Your task to perform on an android device: toggle javascript in the chrome app Image 0: 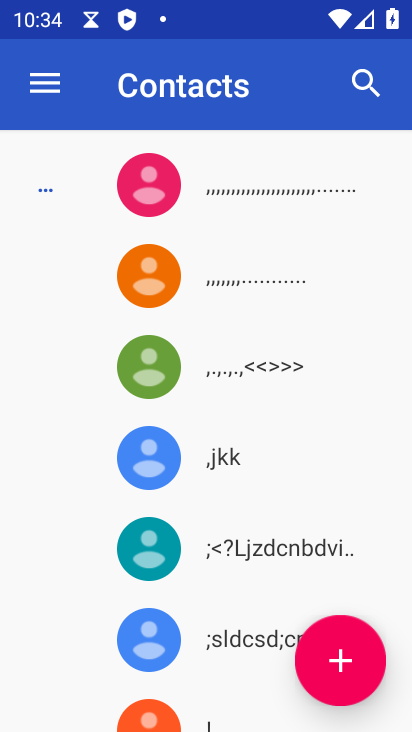
Step 0: press home button
Your task to perform on an android device: toggle javascript in the chrome app Image 1: 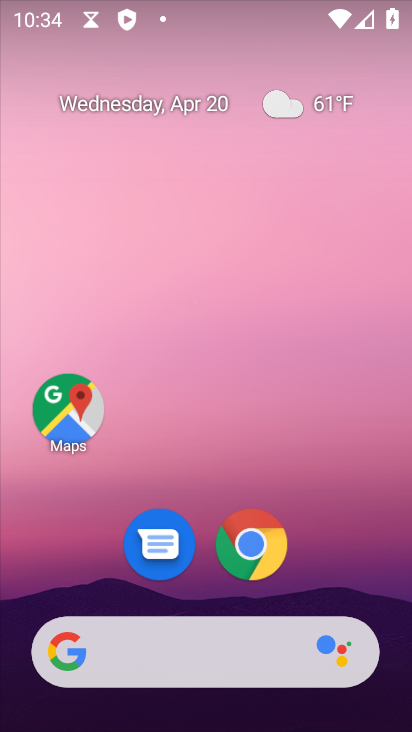
Step 1: drag from (184, 648) to (314, 28)
Your task to perform on an android device: toggle javascript in the chrome app Image 2: 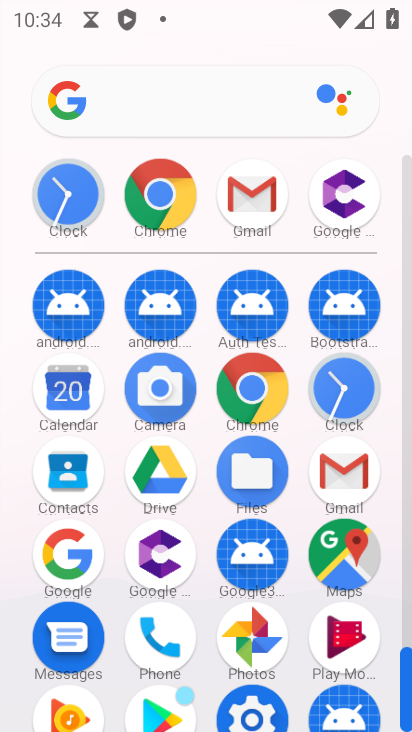
Step 2: click (155, 211)
Your task to perform on an android device: toggle javascript in the chrome app Image 3: 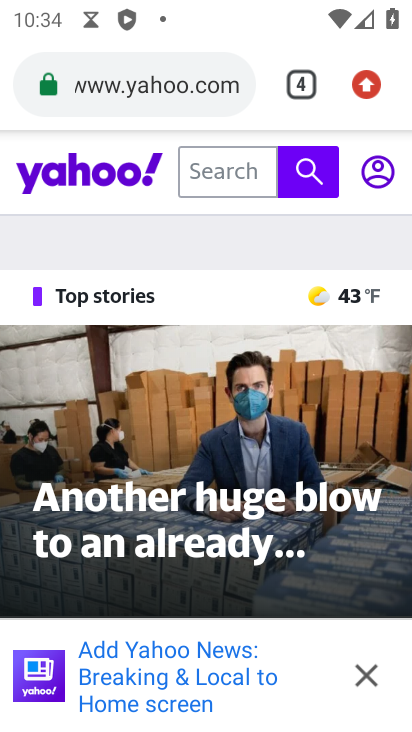
Step 3: click (357, 102)
Your task to perform on an android device: toggle javascript in the chrome app Image 4: 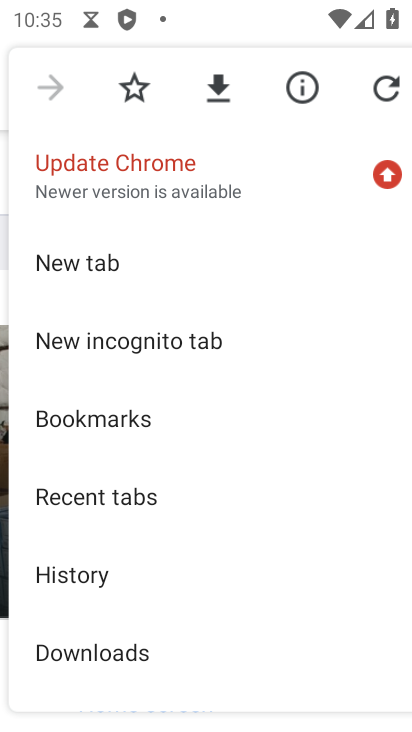
Step 4: drag from (161, 569) to (349, 222)
Your task to perform on an android device: toggle javascript in the chrome app Image 5: 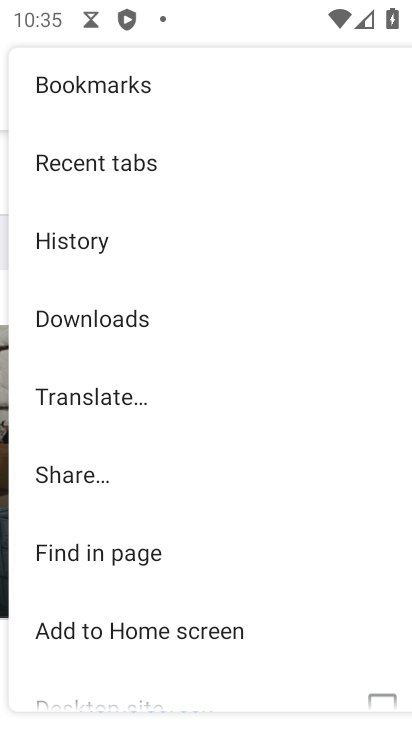
Step 5: drag from (205, 516) to (320, 170)
Your task to perform on an android device: toggle javascript in the chrome app Image 6: 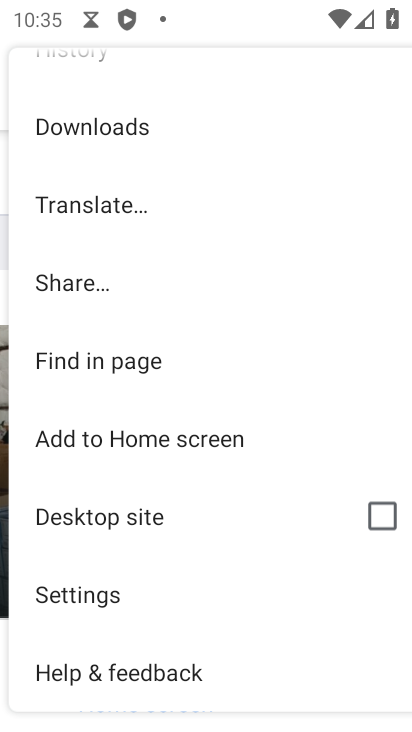
Step 6: click (90, 602)
Your task to perform on an android device: toggle javascript in the chrome app Image 7: 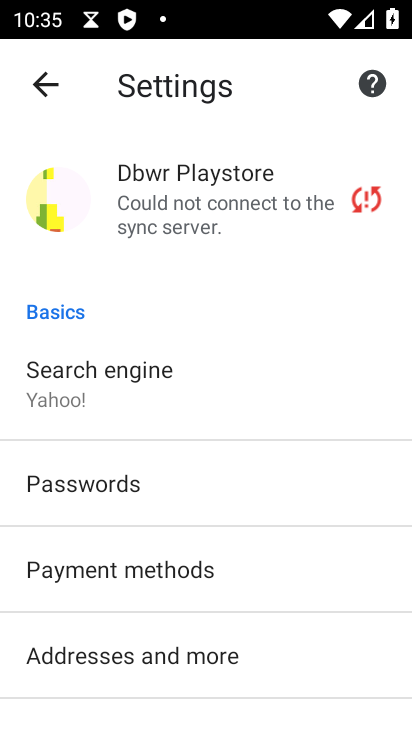
Step 7: drag from (106, 604) to (292, 225)
Your task to perform on an android device: toggle javascript in the chrome app Image 8: 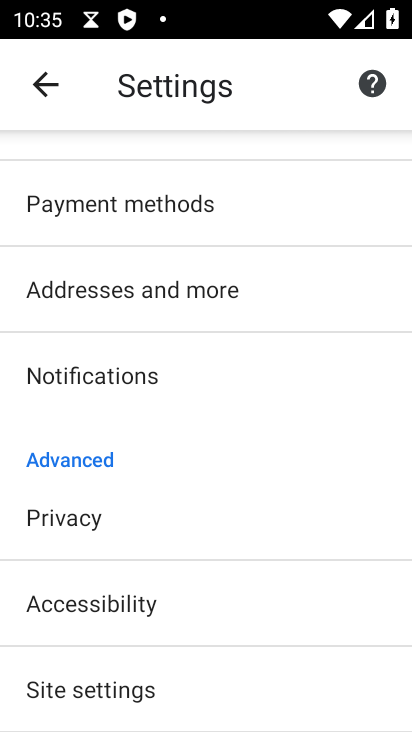
Step 8: drag from (191, 591) to (289, 220)
Your task to perform on an android device: toggle javascript in the chrome app Image 9: 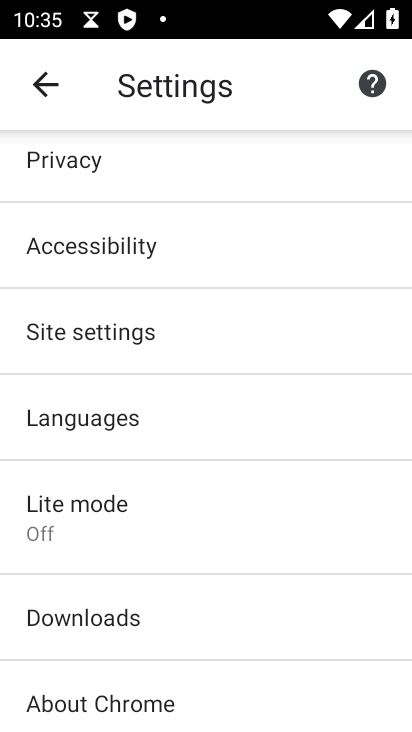
Step 9: click (94, 346)
Your task to perform on an android device: toggle javascript in the chrome app Image 10: 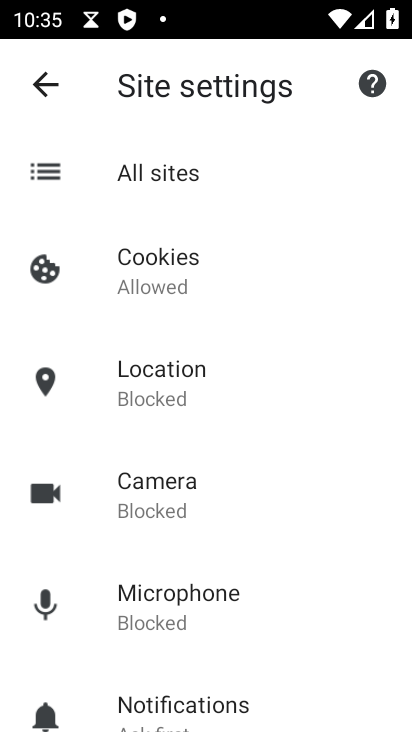
Step 10: drag from (208, 553) to (356, 159)
Your task to perform on an android device: toggle javascript in the chrome app Image 11: 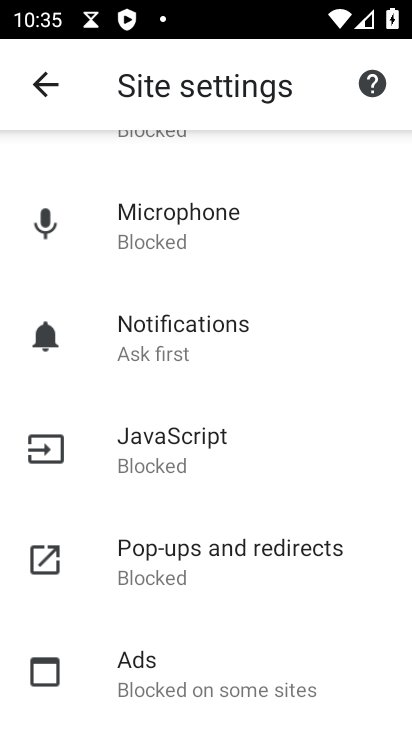
Step 11: click (161, 454)
Your task to perform on an android device: toggle javascript in the chrome app Image 12: 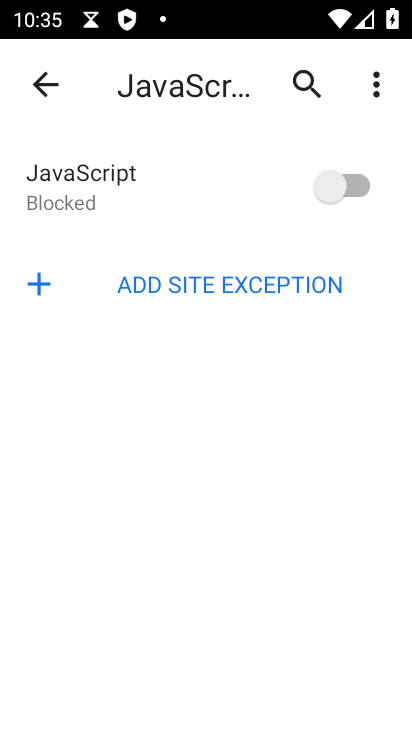
Step 12: click (363, 184)
Your task to perform on an android device: toggle javascript in the chrome app Image 13: 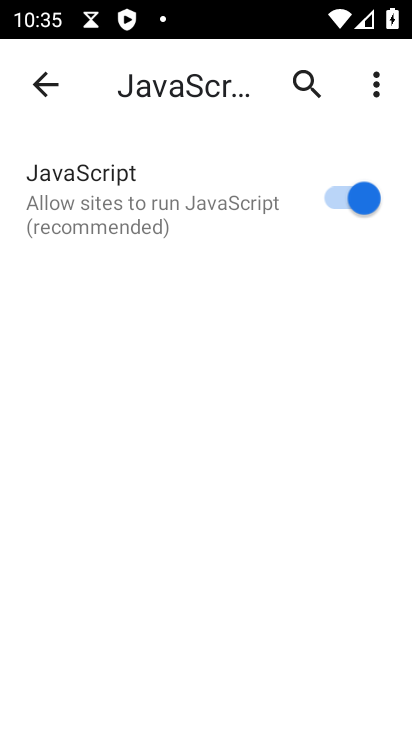
Step 13: task complete